Your task to perform on an android device: Open ESPN.com Image 0: 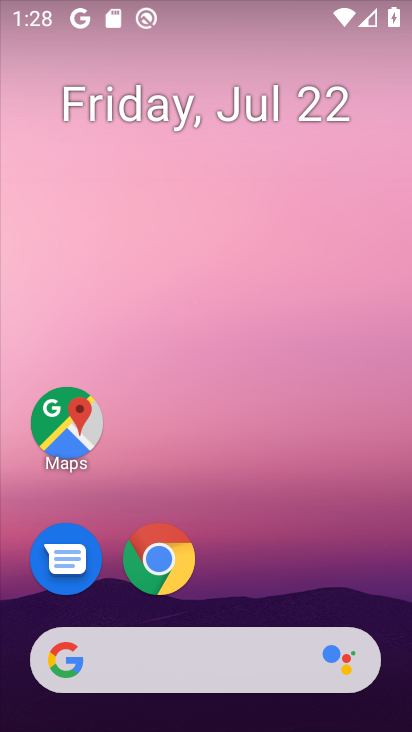
Step 0: click (152, 550)
Your task to perform on an android device: Open ESPN.com Image 1: 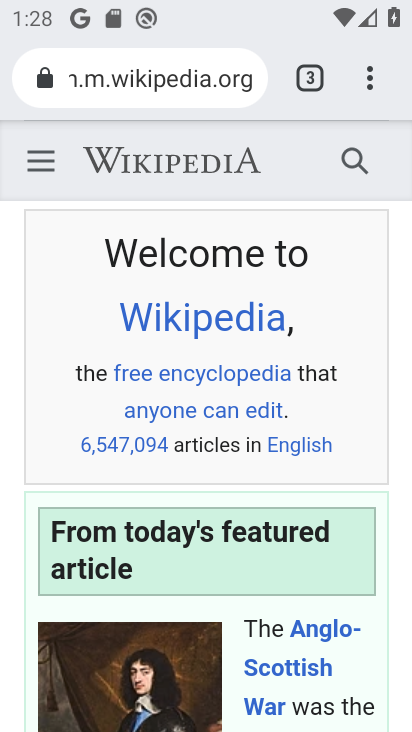
Step 1: click (309, 65)
Your task to perform on an android device: Open ESPN.com Image 2: 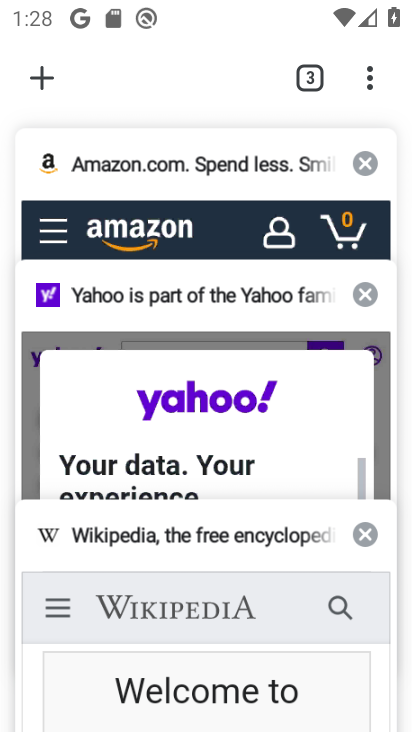
Step 2: click (35, 72)
Your task to perform on an android device: Open ESPN.com Image 3: 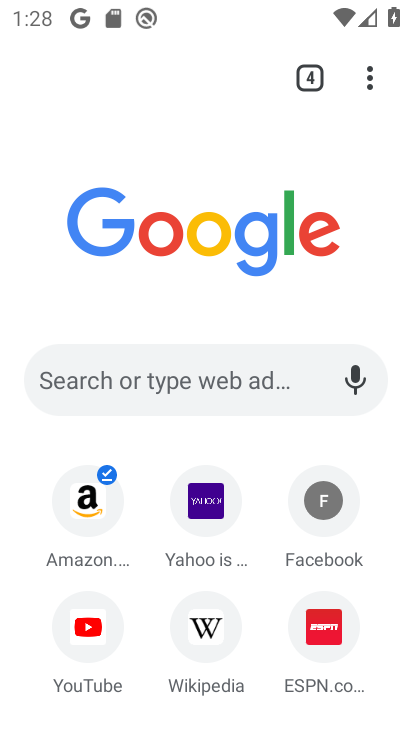
Step 3: click (311, 610)
Your task to perform on an android device: Open ESPN.com Image 4: 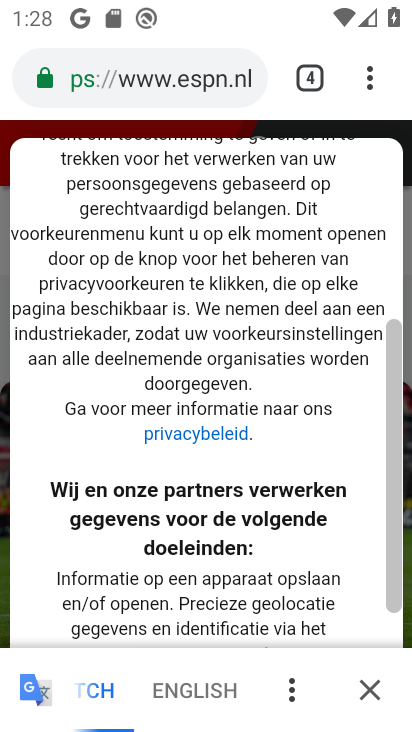
Step 4: task complete